Your task to perform on an android device: Show me recent news Image 0: 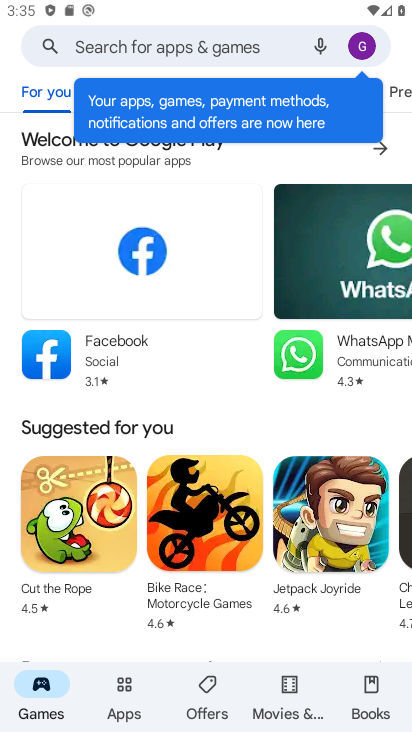
Step 0: press home button
Your task to perform on an android device: Show me recent news Image 1: 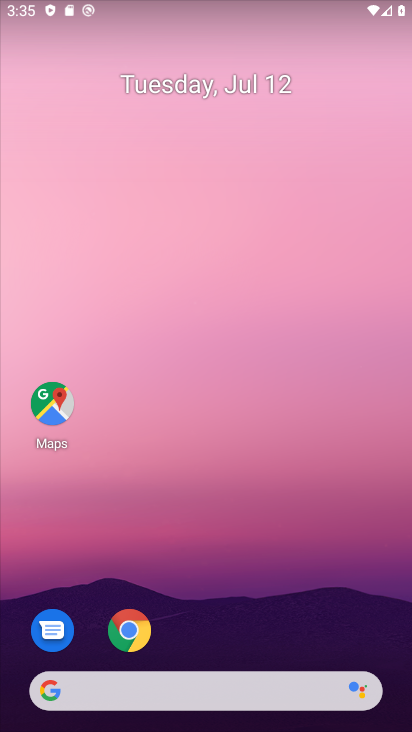
Step 1: click (166, 692)
Your task to perform on an android device: Show me recent news Image 2: 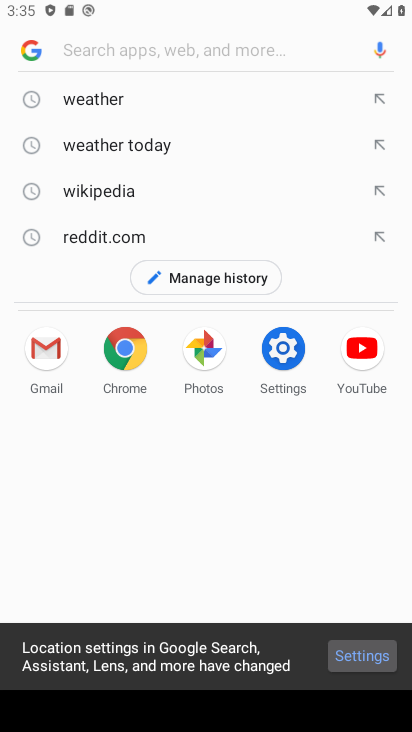
Step 2: click (232, 41)
Your task to perform on an android device: Show me recent news Image 3: 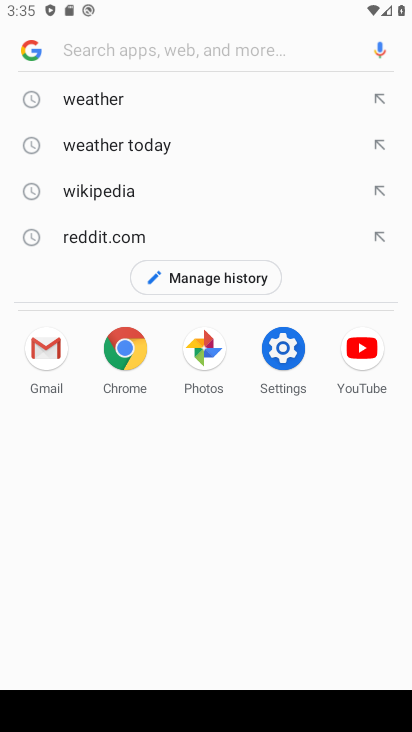
Step 3: type "recent news"
Your task to perform on an android device: Show me recent news Image 4: 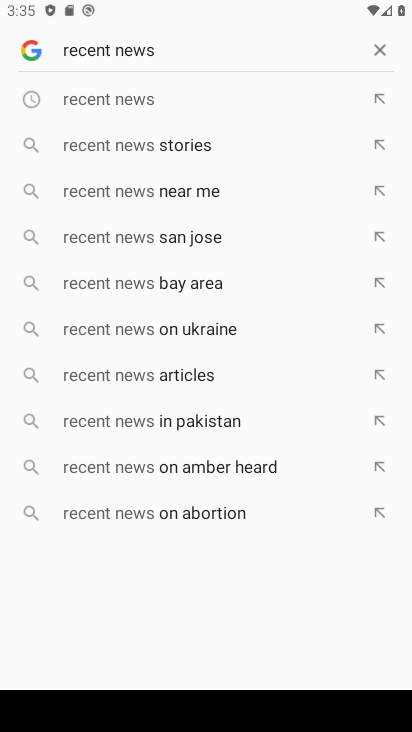
Step 4: click (232, 94)
Your task to perform on an android device: Show me recent news Image 5: 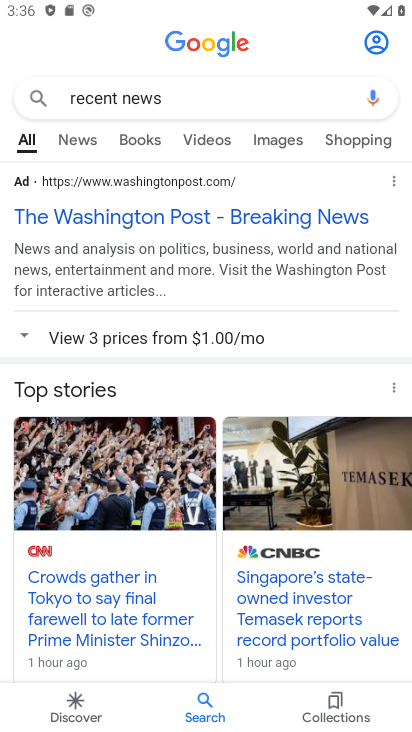
Step 5: task complete